Your task to perform on an android device: set default search engine in the chrome app Image 0: 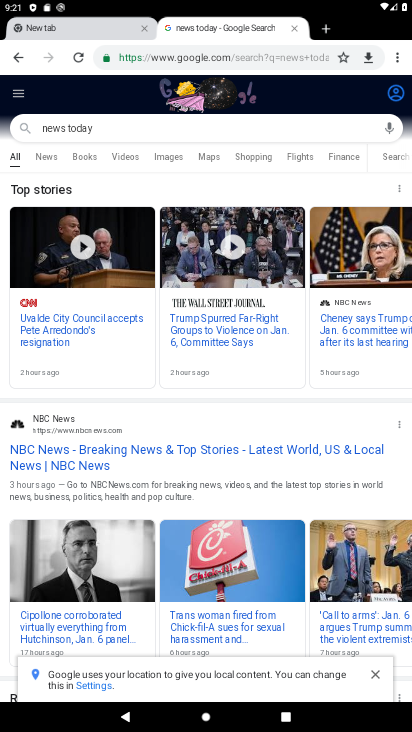
Step 0: drag from (399, 57) to (406, 362)
Your task to perform on an android device: set default search engine in the chrome app Image 1: 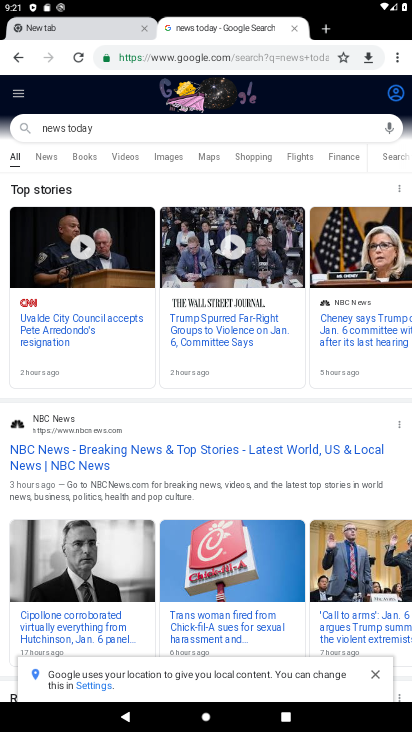
Step 1: click (280, 354)
Your task to perform on an android device: set default search engine in the chrome app Image 2: 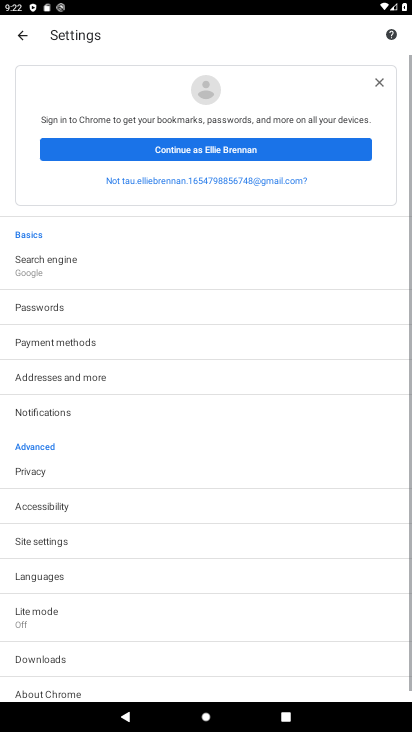
Step 2: click (46, 272)
Your task to perform on an android device: set default search engine in the chrome app Image 3: 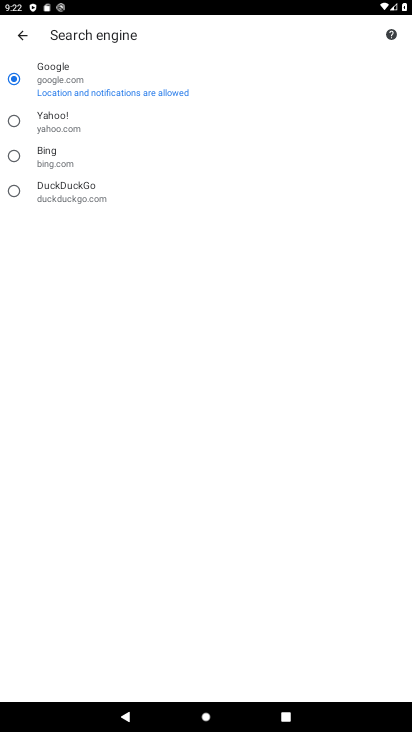
Step 3: task complete